Your task to perform on an android device: check data usage Image 0: 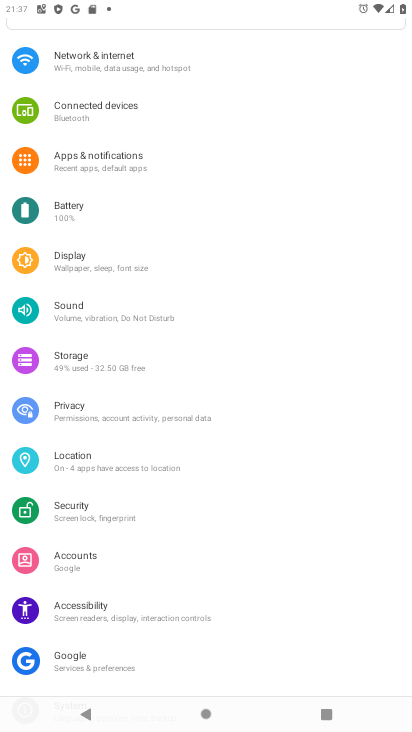
Step 0: press home button
Your task to perform on an android device: check data usage Image 1: 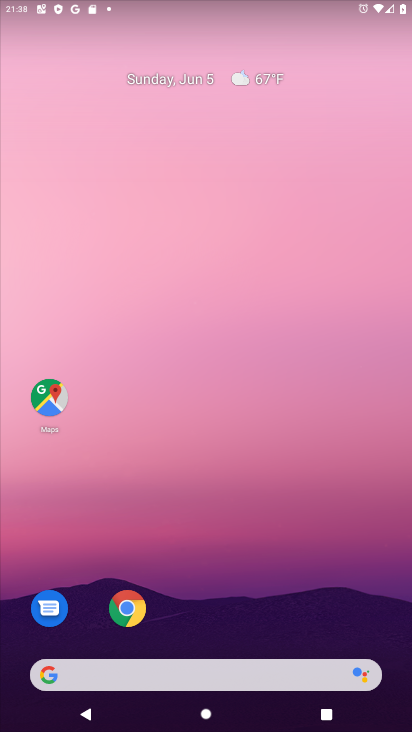
Step 1: drag from (19, 613) to (262, 153)
Your task to perform on an android device: check data usage Image 2: 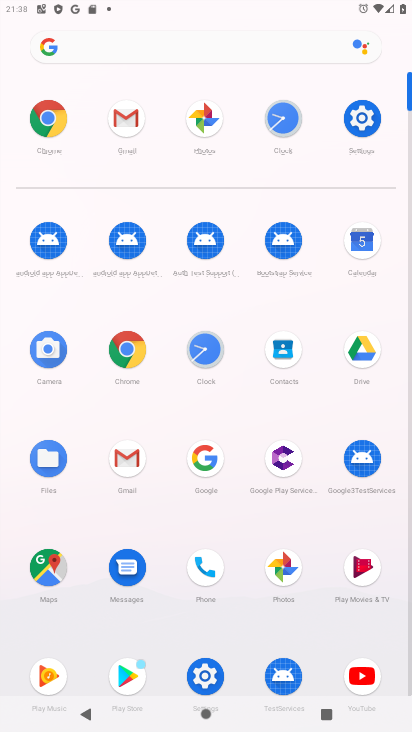
Step 2: click (350, 113)
Your task to perform on an android device: check data usage Image 3: 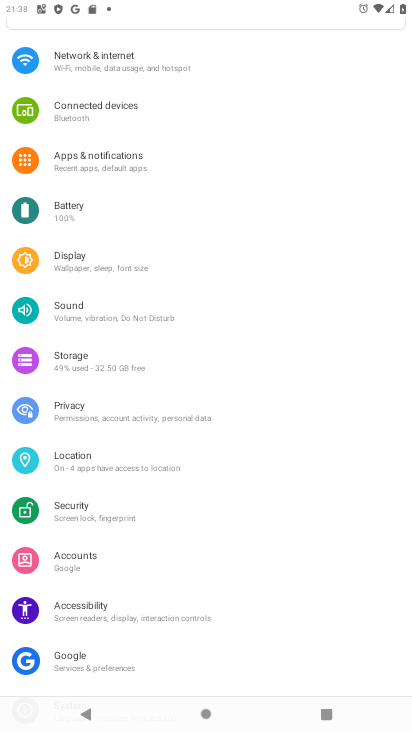
Step 3: click (112, 69)
Your task to perform on an android device: check data usage Image 4: 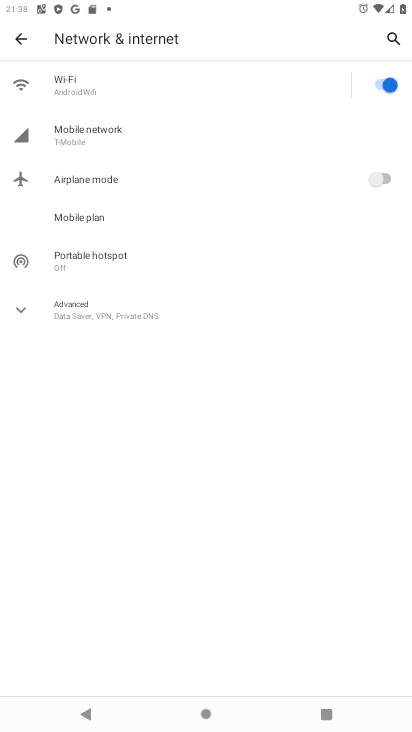
Step 4: click (59, 126)
Your task to perform on an android device: check data usage Image 5: 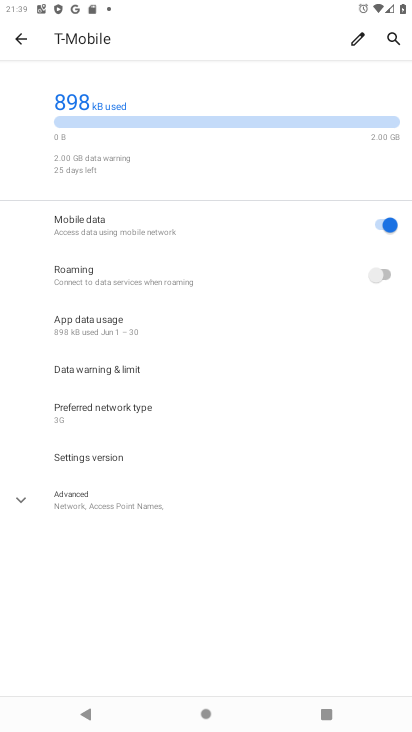
Step 5: task complete